Your task to perform on an android device: open device folders in google photos Image 0: 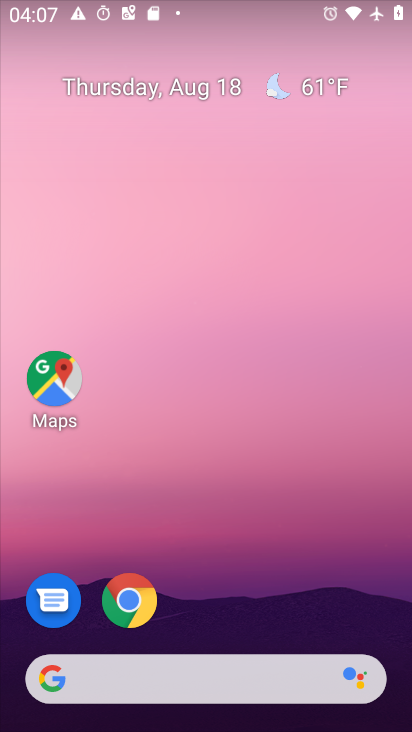
Step 0: press home button
Your task to perform on an android device: open device folders in google photos Image 1: 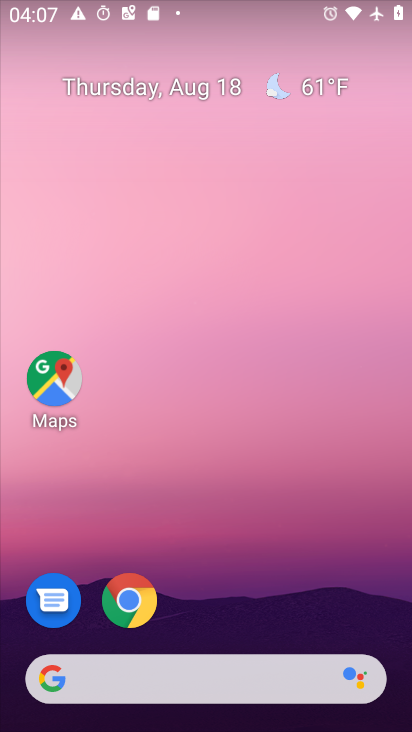
Step 1: drag from (261, 635) to (296, 70)
Your task to perform on an android device: open device folders in google photos Image 2: 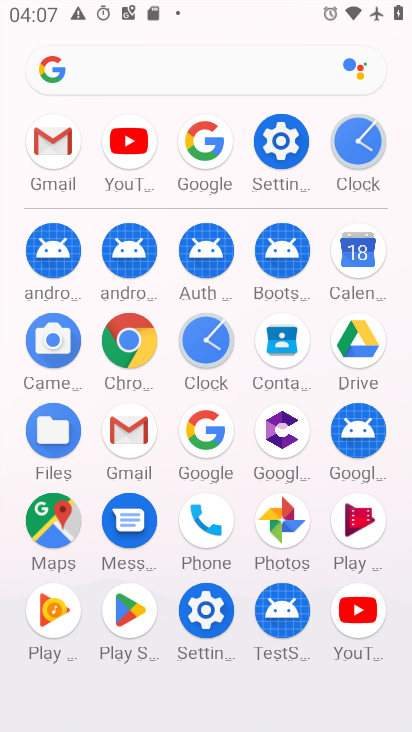
Step 2: click (289, 512)
Your task to perform on an android device: open device folders in google photos Image 3: 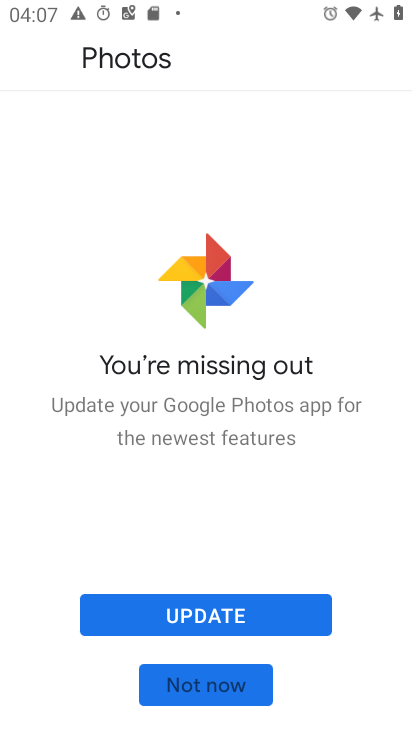
Step 3: click (208, 614)
Your task to perform on an android device: open device folders in google photos Image 4: 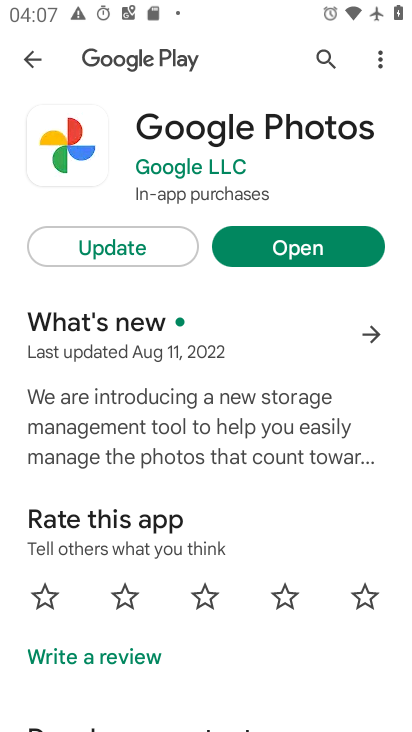
Step 4: click (144, 252)
Your task to perform on an android device: open device folders in google photos Image 5: 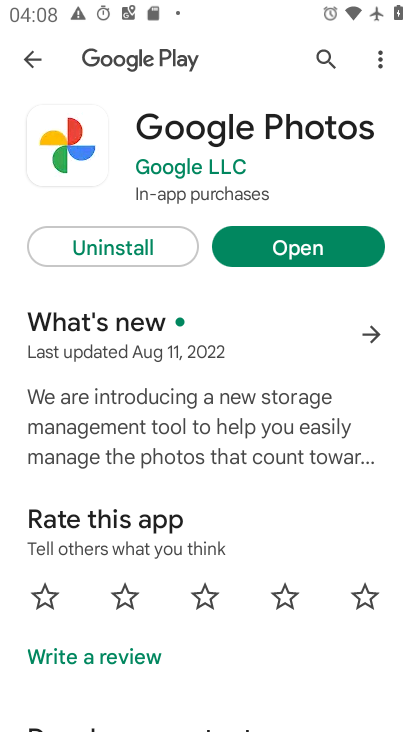
Step 5: click (270, 255)
Your task to perform on an android device: open device folders in google photos Image 6: 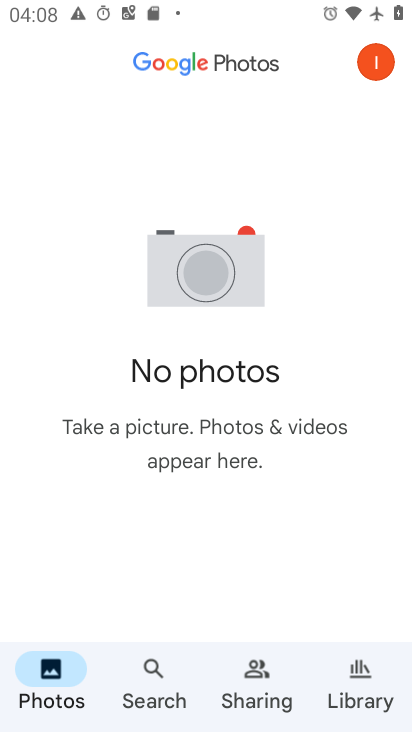
Step 6: click (367, 686)
Your task to perform on an android device: open device folders in google photos Image 7: 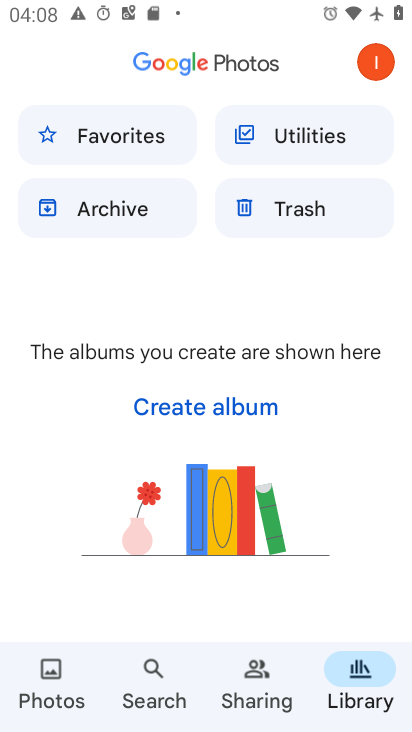
Step 7: task complete